Your task to perform on an android device: Is it going to rain tomorrow? Image 0: 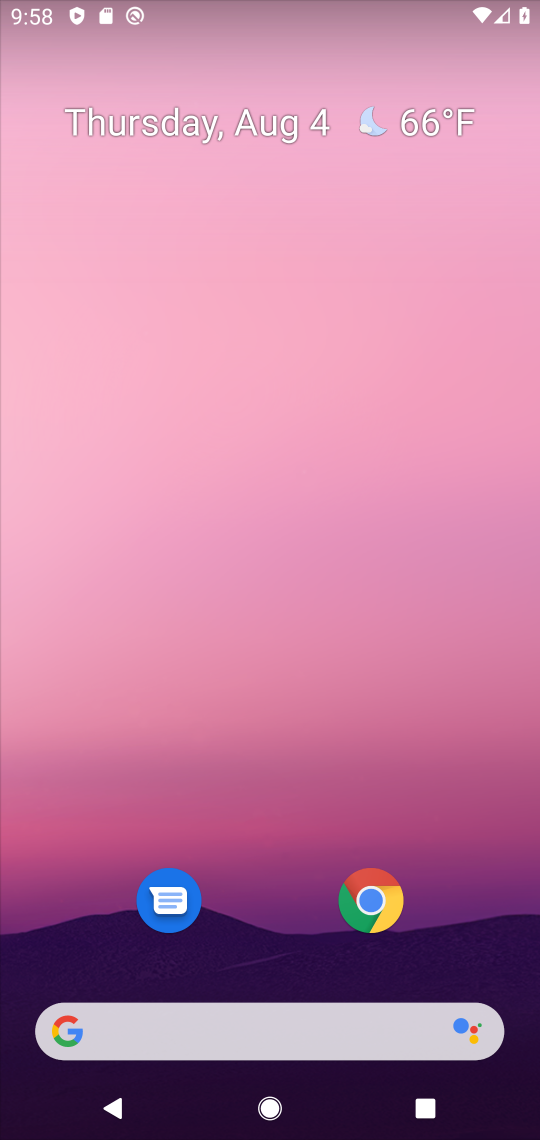
Step 0: drag from (502, 959) to (487, 794)
Your task to perform on an android device: Is it going to rain tomorrow? Image 1: 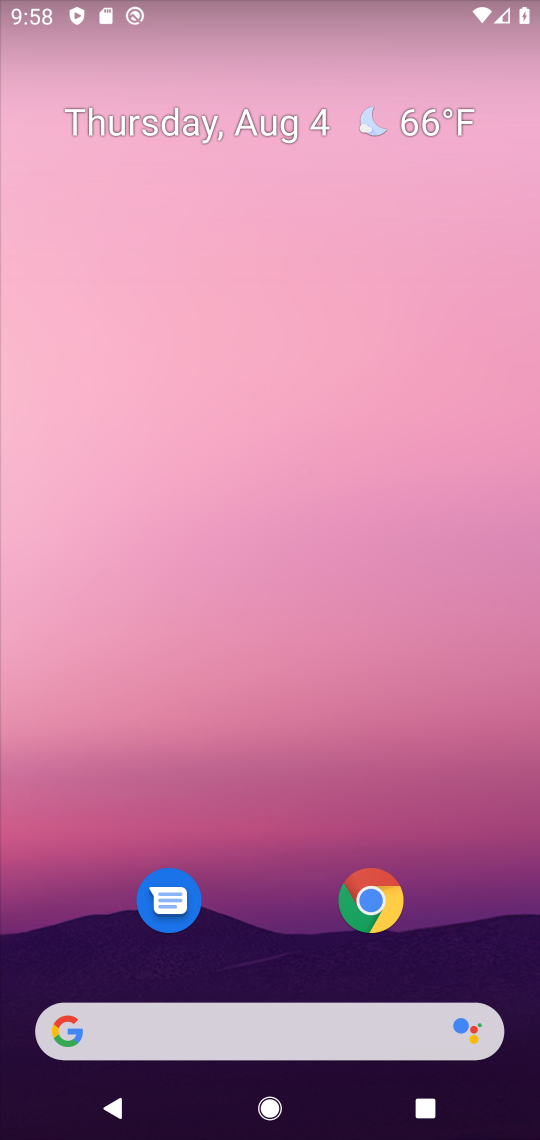
Step 1: click (367, 921)
Your task to perform on an android device: Is it going to rain tomorrow? Image 2: 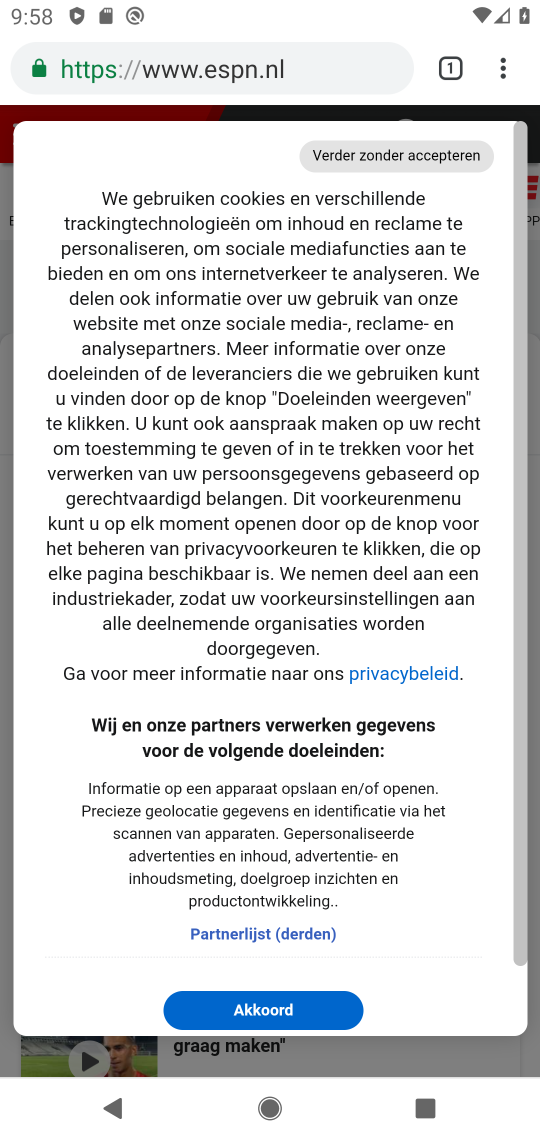
Step 2: click (290, 88)
Your task to perform on an android device: Is it going to rain tomorrow? Image 3: 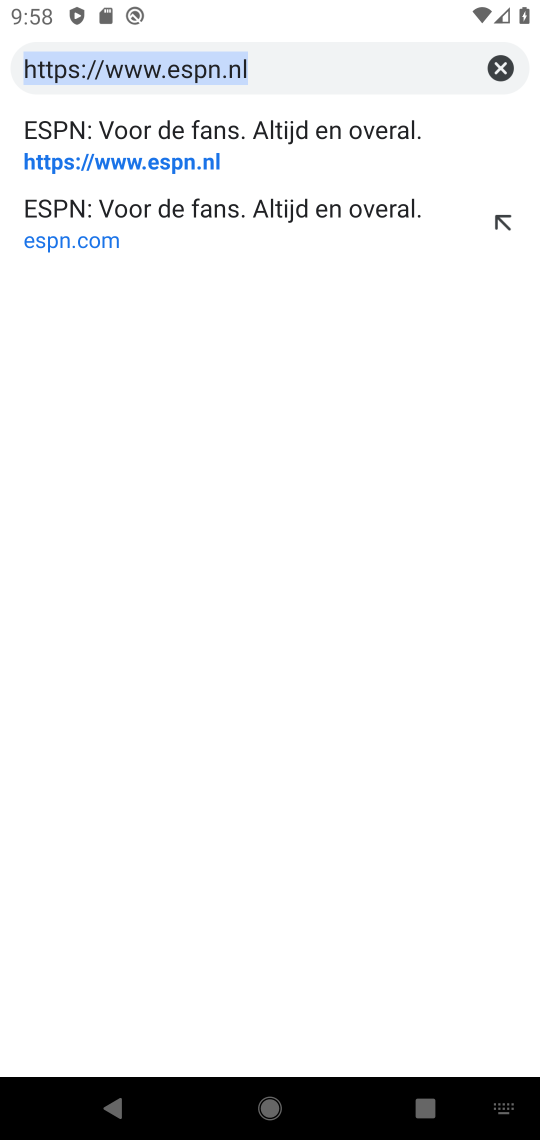
Step 3: type "Is it going to rain tomorrow?"
Your task to perform on an android device: Is it going to rain tomorrow? Image 4: 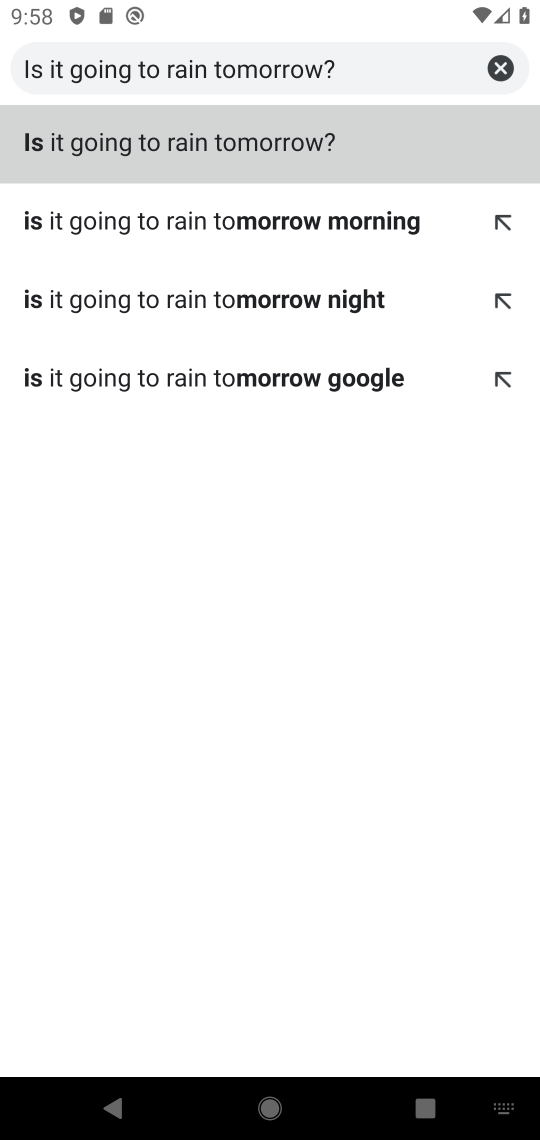
Step 4: click (332, 142)
Your task to perform on an android device: Is it going to rain tomorrow? Image 5: 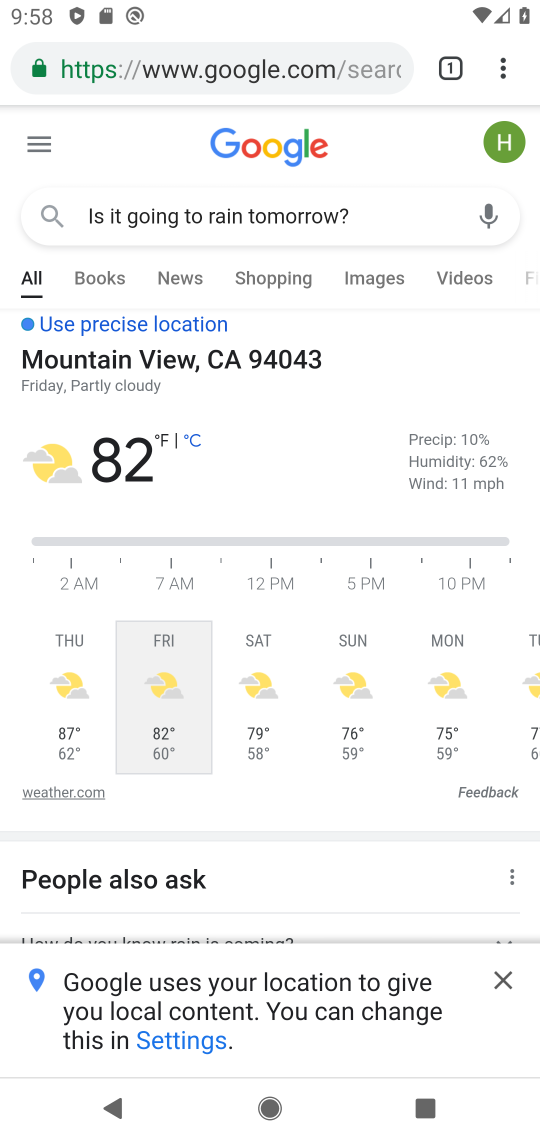
Step 5: task complete